Your task to perform on an android device: change the clock style Image 0: 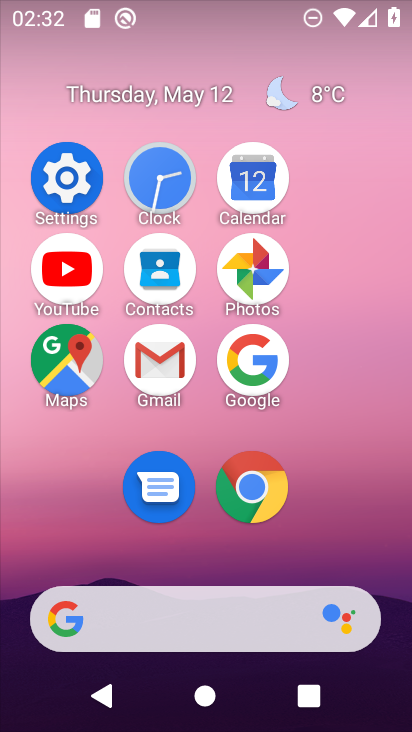
Step 0: click (162, 185)
Your task to perform on an android device: change the clock style Image 1: 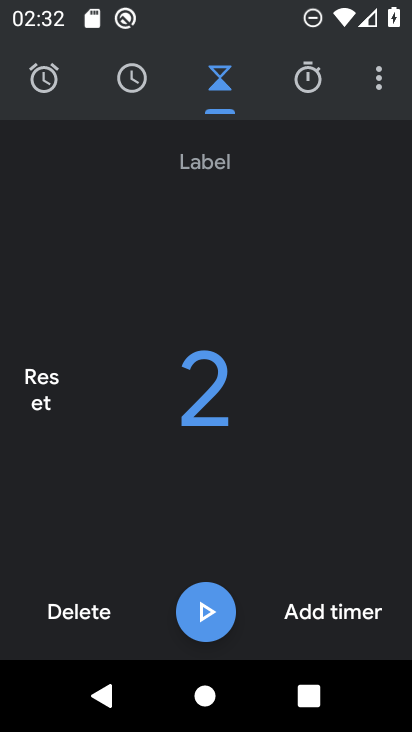
Step 1: click (373, 88)
Your task to perform on an android device: change the clock style Image 2: 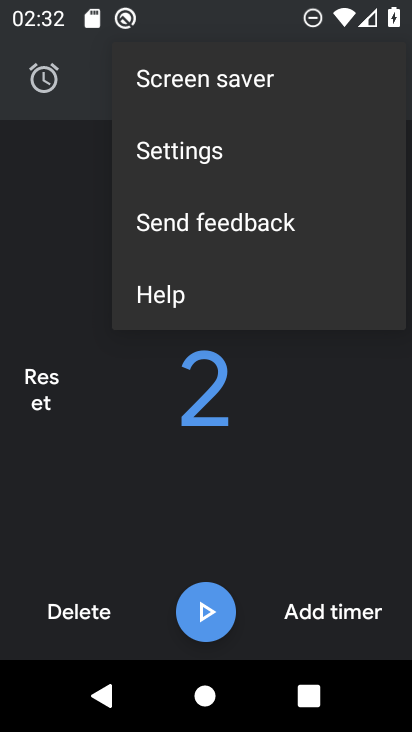
Step 2: click (199, 149)
Your task to perform on an android device: change the clock style Image 3: 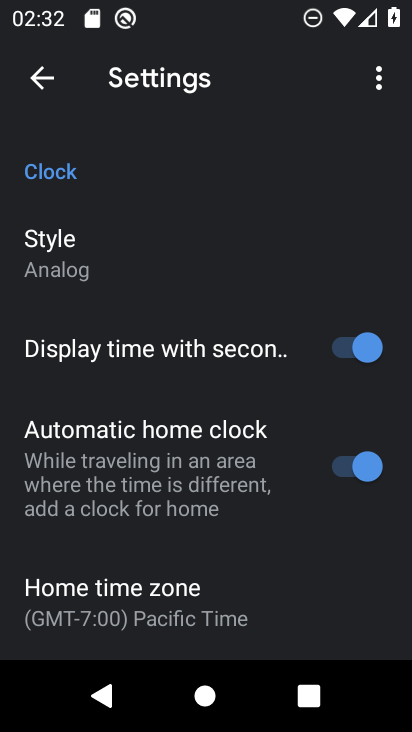
Step 3: click (131, 231)
Your task to perform on an android device: change the clock style Image 4: 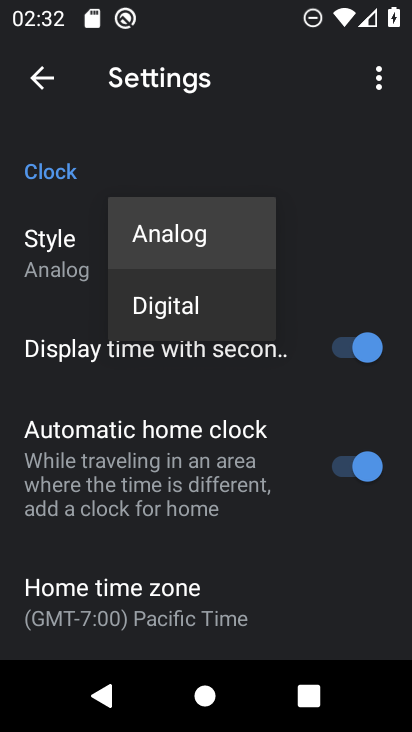
Step 4: click (200, 302)
Your task to perform on an android device: change the clock style Image 5: 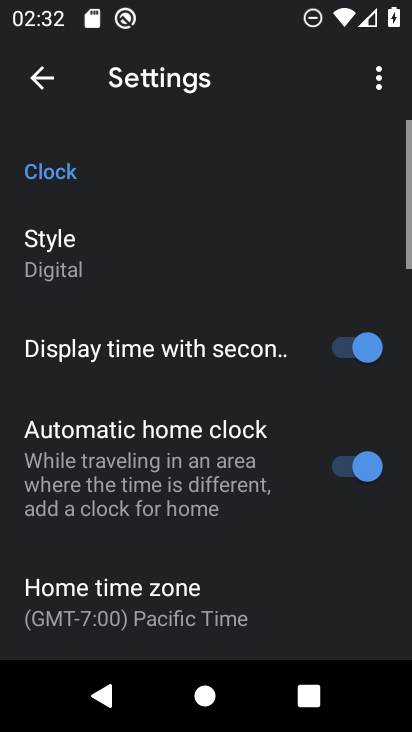
Step 5: task complete